Your task to perform on an android device: clear all cookies in the chrome app Image 0: 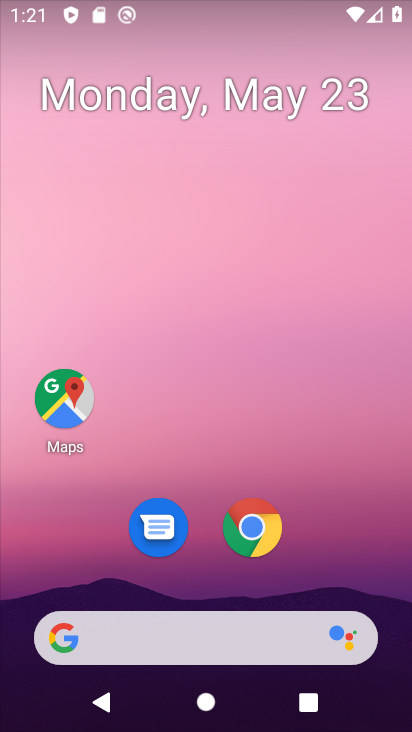
Step 0: click (251, 524)
Your task to perform on an android device: clear all cookies in the chrome app Image 1: 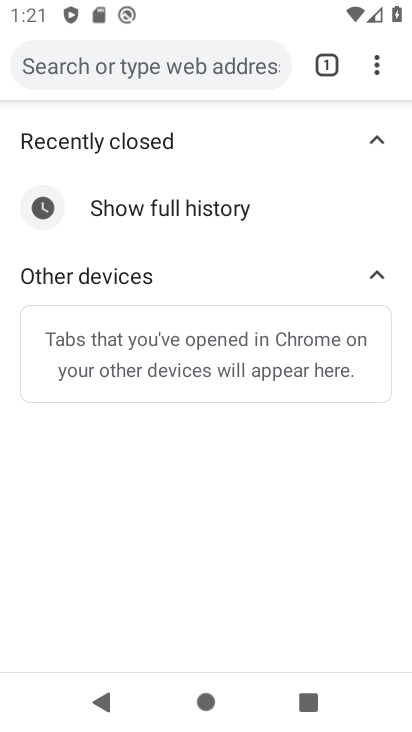
Step 1: drag from (373, 52) to (156, 363)
Your task to perform on an android device: clear all cookies in the chrome app Image 2: 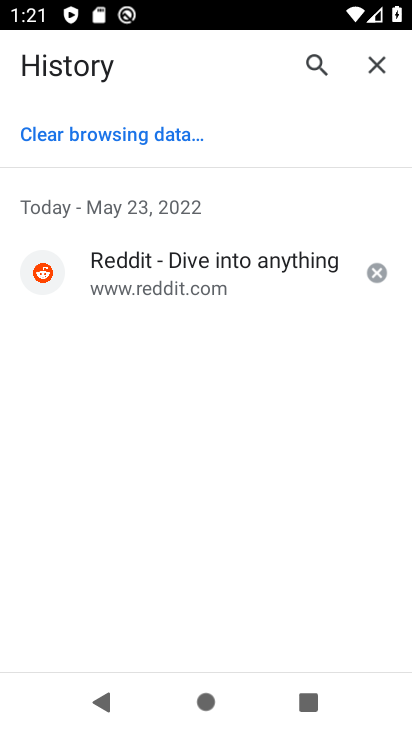
Step 2: click (101, 138)
Your task to perform on an android device: clear all cookies in the chrome app Image 3: 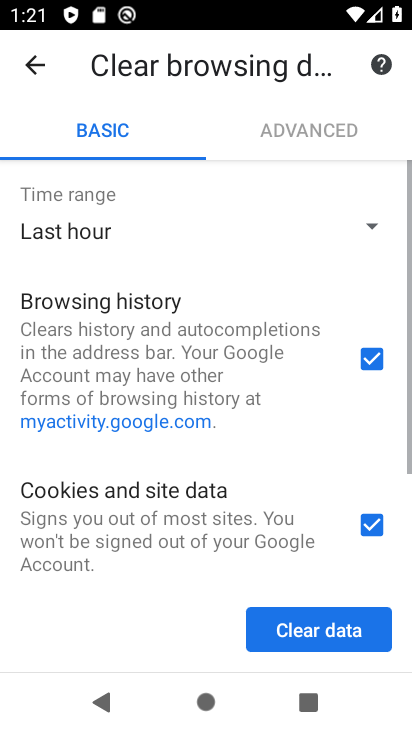
Step 3: click (361, 370)
Your task to perform on an android device: clear all cookies in the chrome app Image 4: 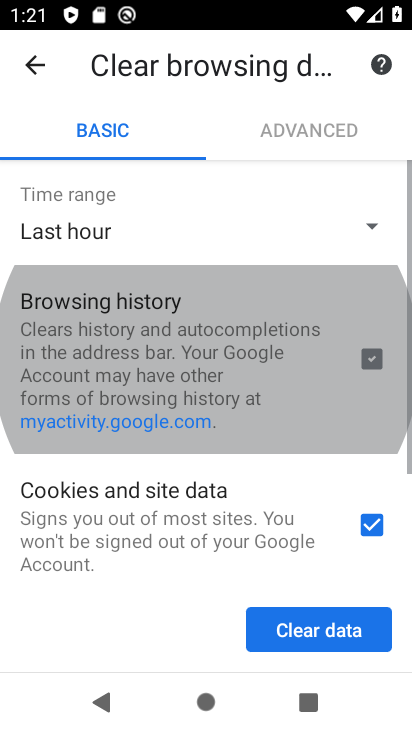
Step 4: drag from (172, 497) to (203, 137)
Your task to perform on an android device: clear all cookies in the chrome app Image 5: 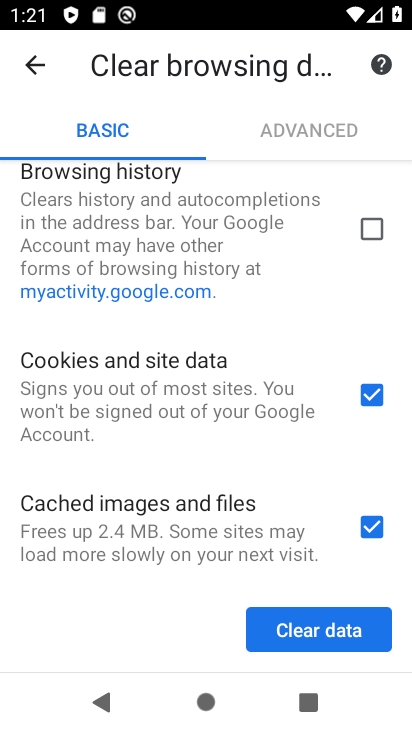
Step 5: click (368, 524)
Your task to perform on an android device: clear all cookies in the chrome app Image 6: 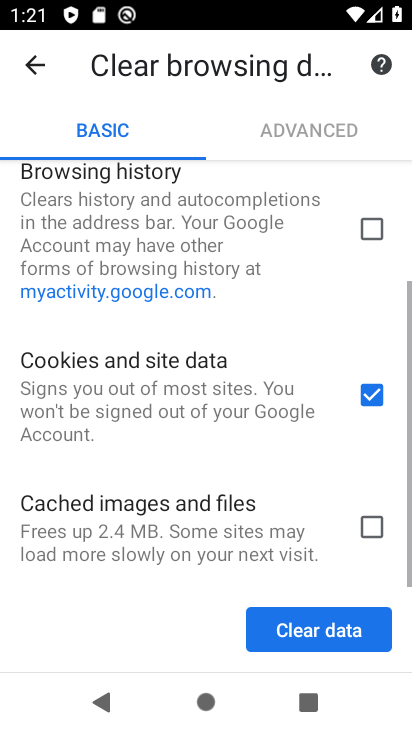
Step 6: click (305, 626)
Your task to perform on an android device: clear all cookies in the chrome app Image 7: 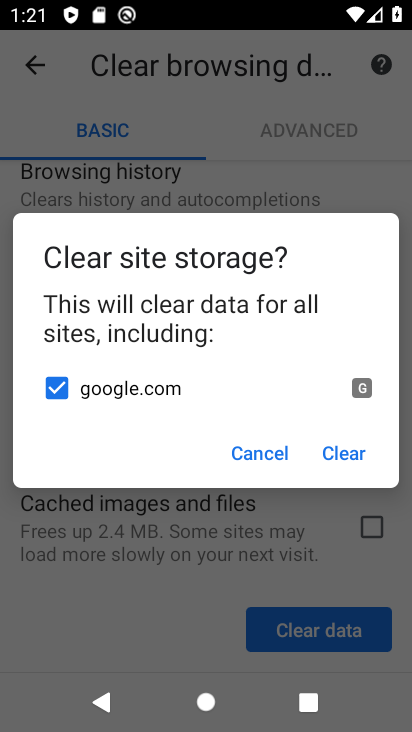
Step 7: click (329, 443)
Your task to perform on an android device: clear all cookies in the chrome app Image 8: 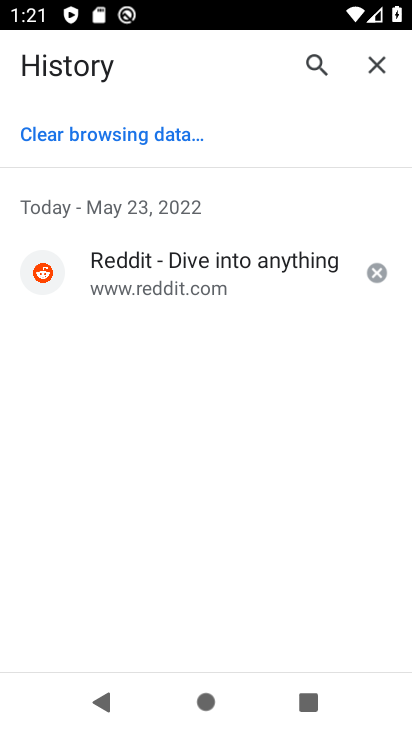
Step 8: task complete